Your task to perform on an android device: delete browsing data in the chrome app Image 0: 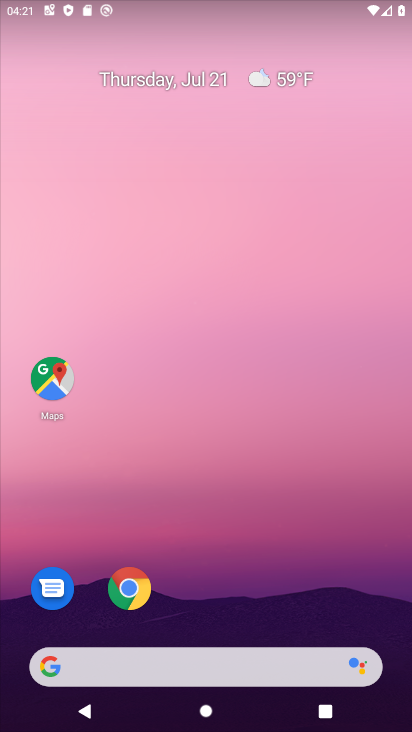
Step 0: drag from (264, 631) to (267, 168)
Your task to perform on an android device: delete browsing data in the chrome app Image 1: 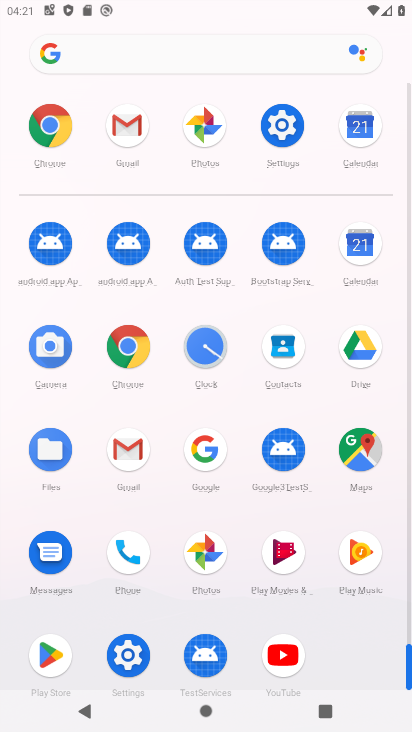
Step 1: click (127, 354)
Your task to perform on an android device: delete browsing data in the chrome app Image 2: 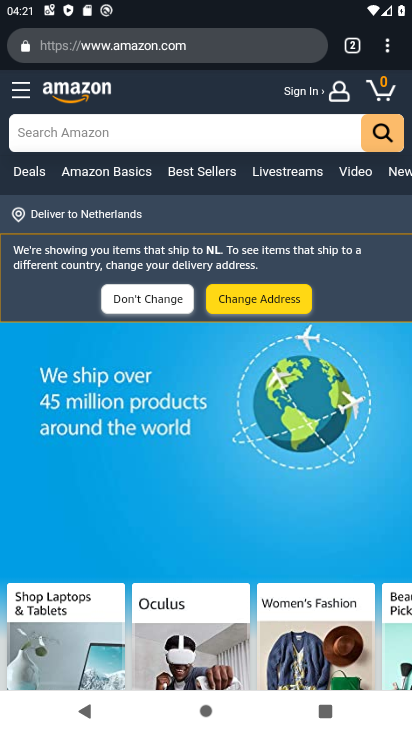
Step 2: click (385, 50)
Your task to perform on an android device: delete browsing data in the chrome app Image 3: 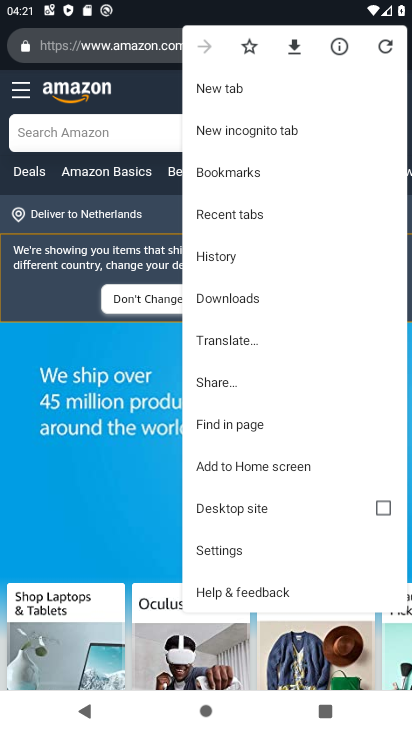
Step 3: click (212, 258)
Your task to perform on an android device: delete browsing data in the chrome app Image 4: 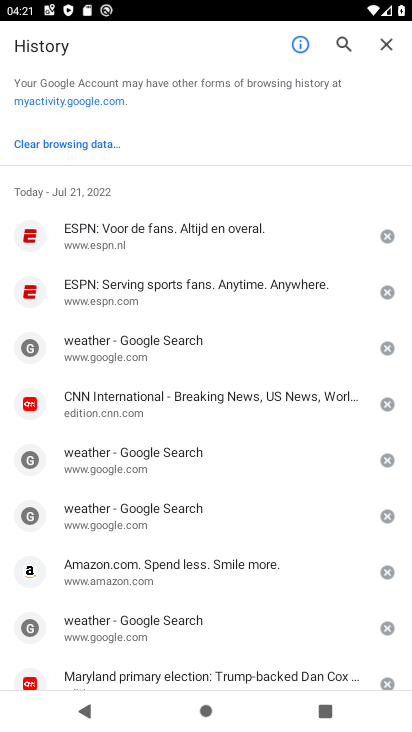
Step 4: click (75, 140)
Your task to perform on an android device: delete browsing data in the chrome app Image 5: 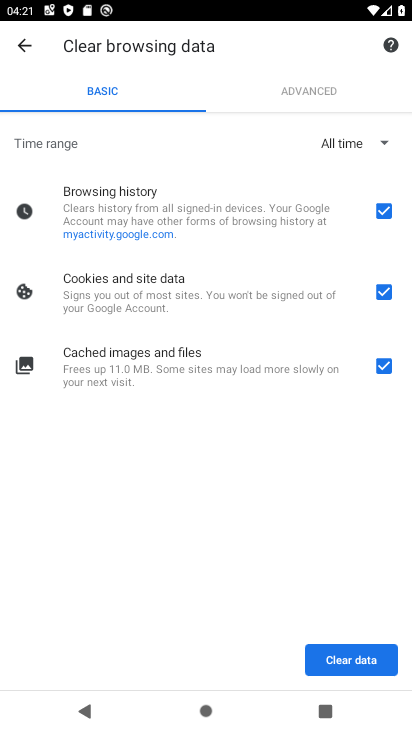
Step 5: click (359, 663)
Your task to perform on an android device: delete browsing data in the chrome app Image 6: 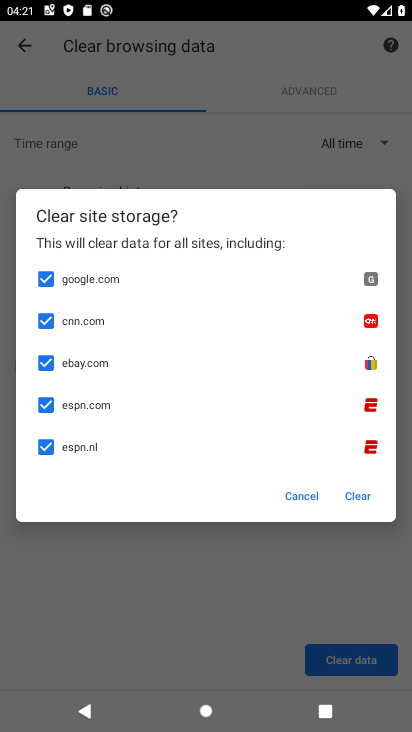
Step 6: click (351, 492)
Your task to perform on an android device: delete browsing data in the chrome app Image 7: 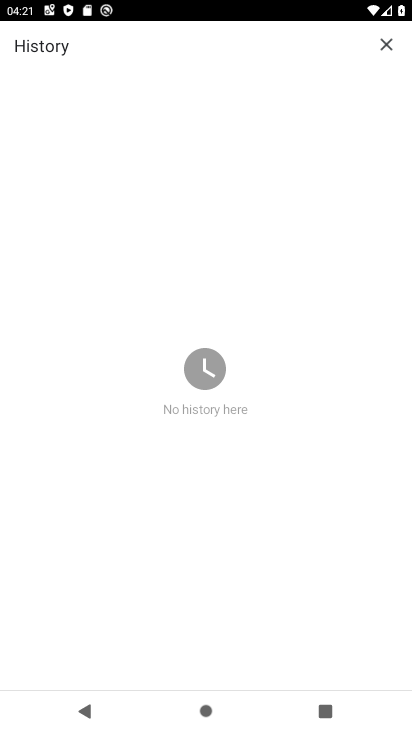
Step 7: task complete